Your task to perform on an android device: Open sound settings Image 0: 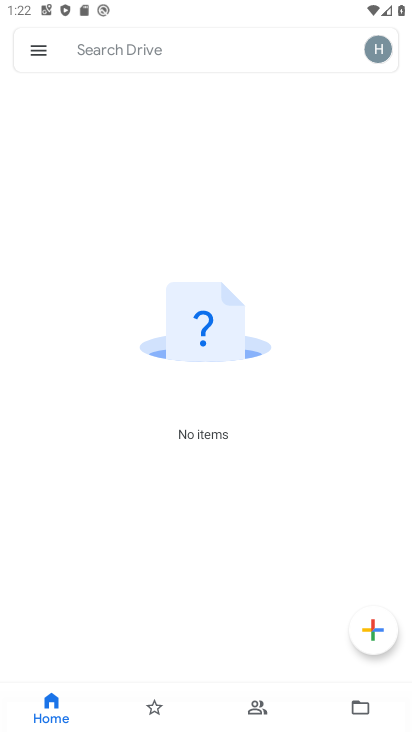
Step 0: press home button
Your task to perform on an android device: Open sound settings Image 1: 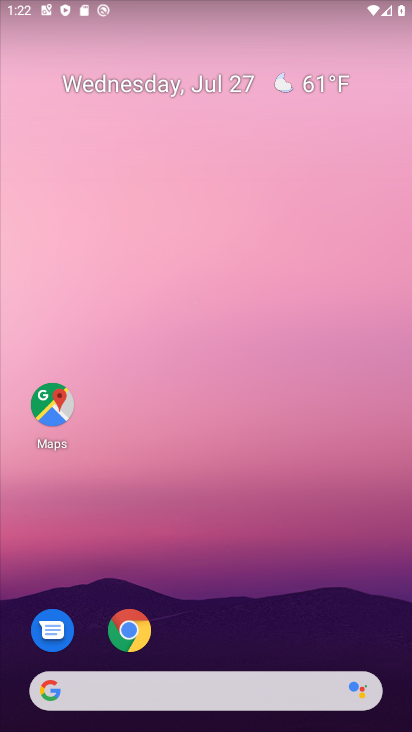
Step 1: drag from (174, 620) to (207, 141)
Your task to perform on an android device: Open sound settings Image 2: 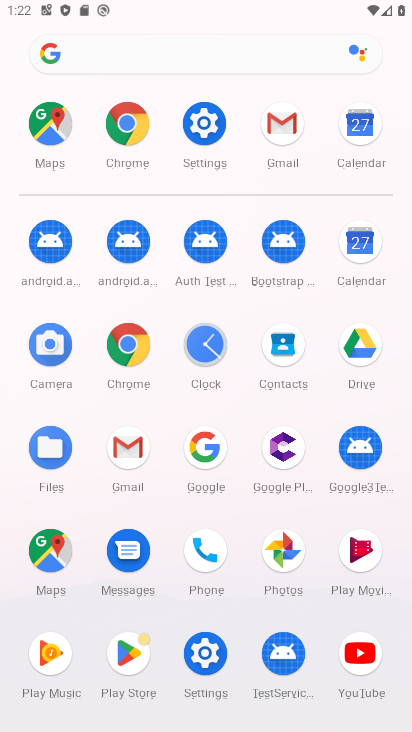
Step 2: click (203, 120)
Your task to perform on an android device: Open sound settings Image 3: 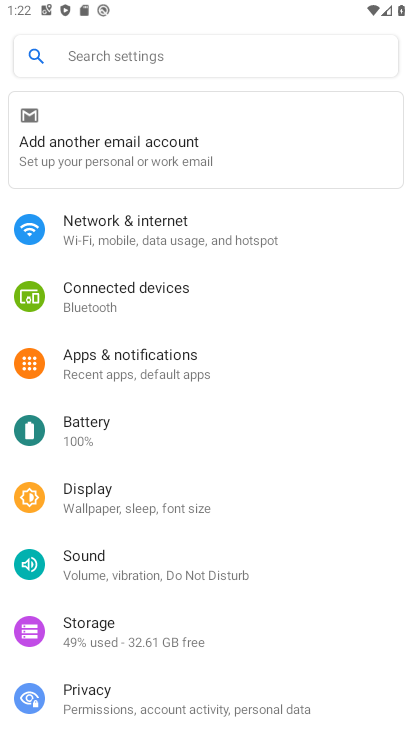
Step 3: click (116, 566)
Your task to perform on an android device: Open sound settings Image 4: 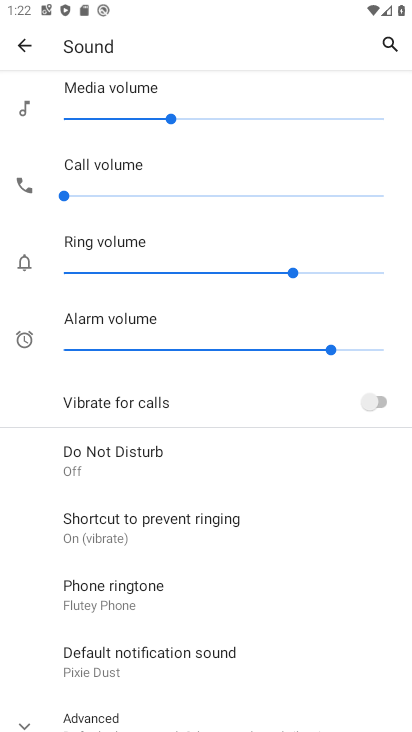
Step 4: drag from (135, 689) to (159, 288)
Your task to perform on an android device: Open sound settings Image 5: 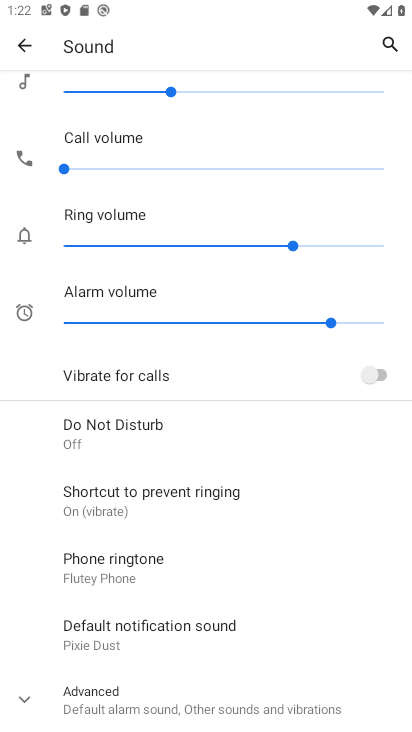
Step 5: click (101, 705)
Your task to perform on an android device: Open sound settings Image 6: 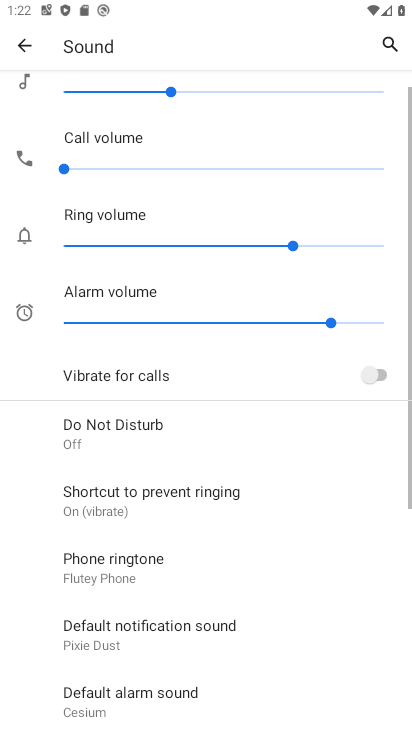
Step 6: task complete